Your task to perform on an android device: toggle notification dots Image 0: 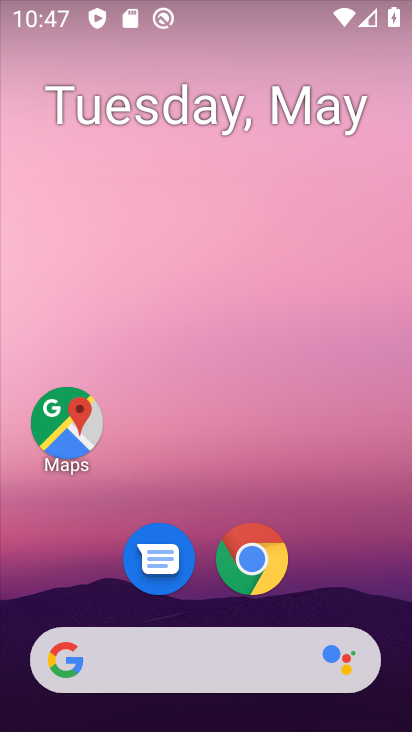
Step 0: drag from (345, 580) to (313, 11)
Your task to perform on an android device: toggle notification dots Image 1: 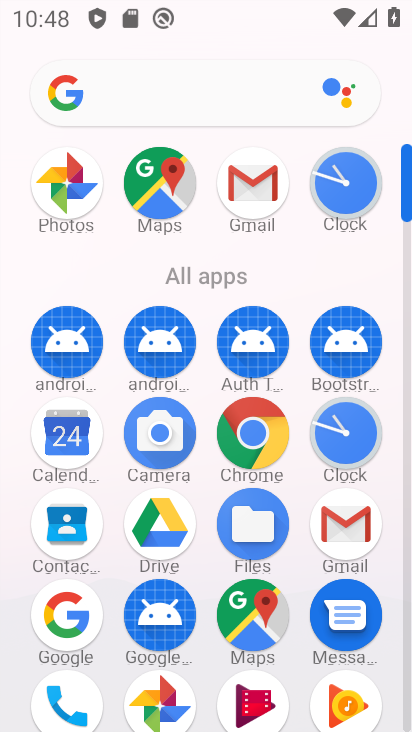
Step 1: click (406, 656)
Your task to perform on an android device: toggle notification dots Image 2: 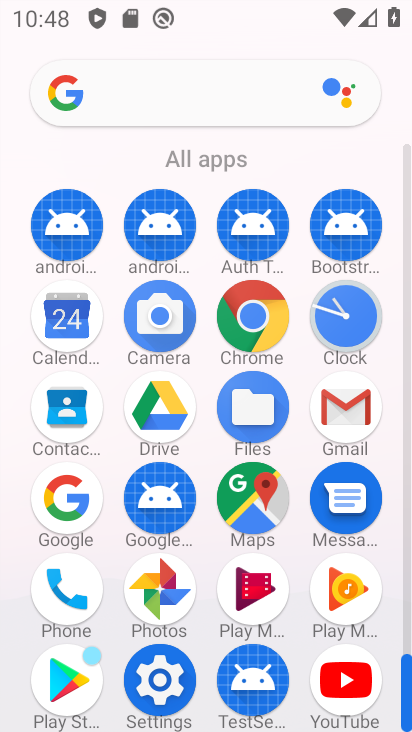
Step 2: click (136, 684)
Your task to perform on an android device: toggle notification dots Image 3: 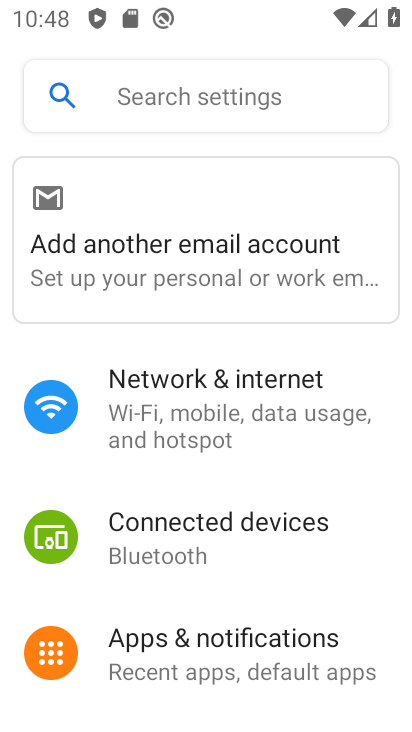
Step 3: click (276, 634)
Your task to perform on an android device: toggle notification dots Image 4: 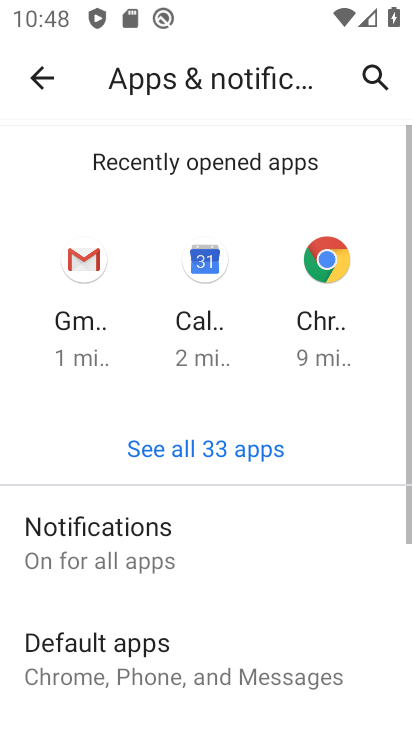
Step 4: click (242, 551)
Your task to perform on an android device: toggle notification dots Image 5: 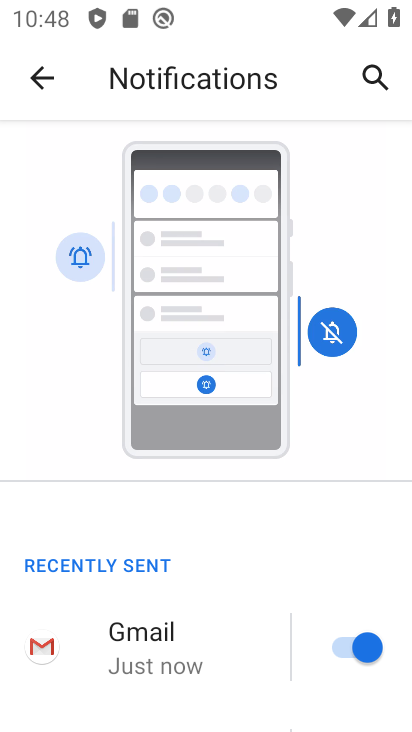
Step 5: drag from (243, 683) to (204, 55)
Your task to perform on an android device: toggle notification dots Image 6: 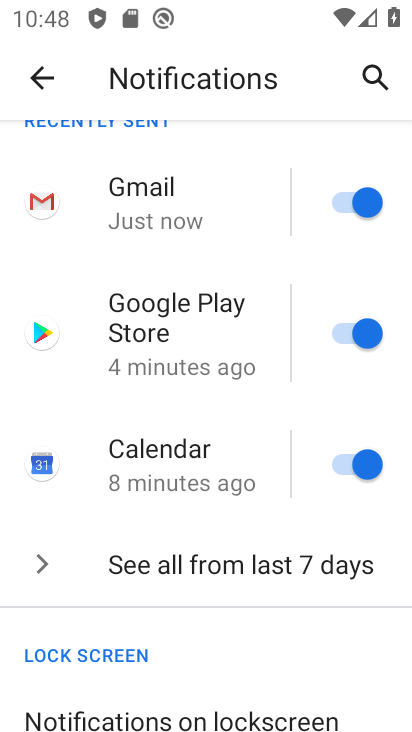
Step 6: drag from (224, 628) to (209, 146)
Your task to perform on an android device: toggle notification dots Image 7: 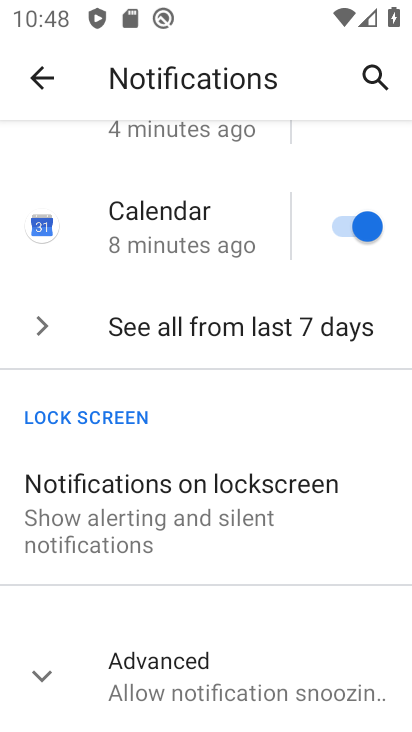
Step 7: click (217, 659)
Your task to perform on an android device: toggle notification dots Image 8: 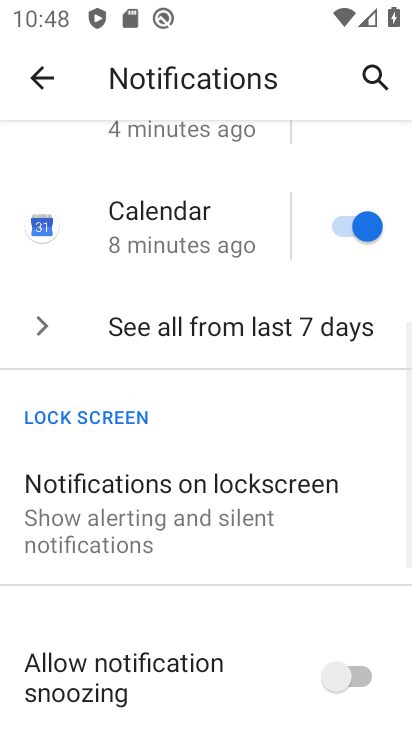
Step 8: drag from (207, 609) to (222, 71)
Your task to perform on an android device: toggle notification dots Image 9: 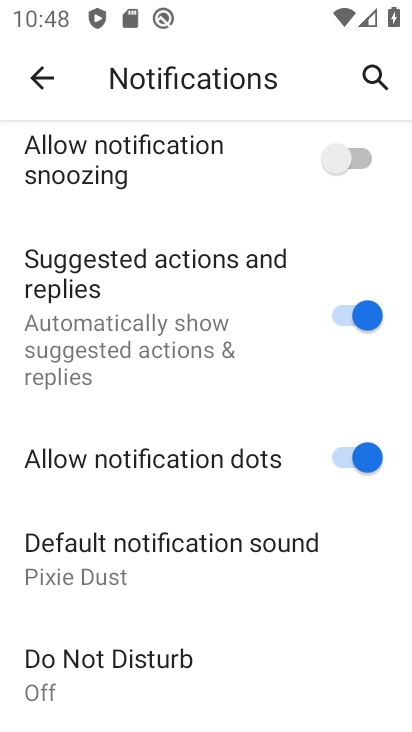
Step 9: click (347, 455)
Your task to perform on an android device: toggle notification dots Image 10: 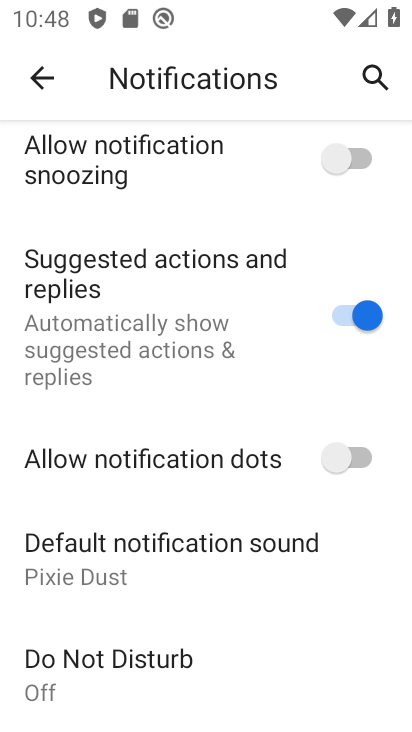
Step 10: task complete